Your task to perform on an android device: Open Reddit.com Image 0: 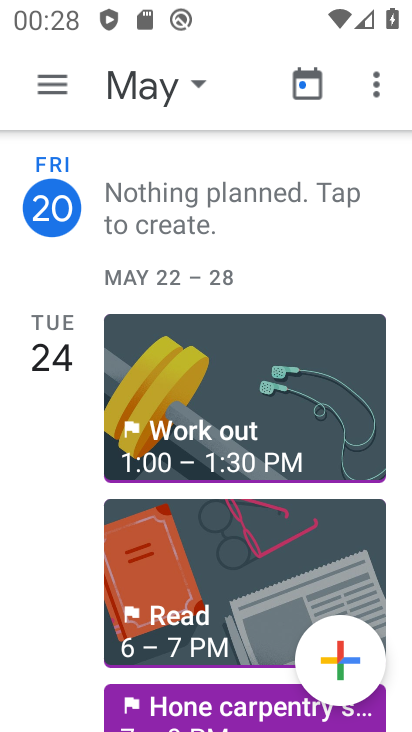
Step 0: press home button
Your task to perform on an android device: Open Reddit.com Image 1: 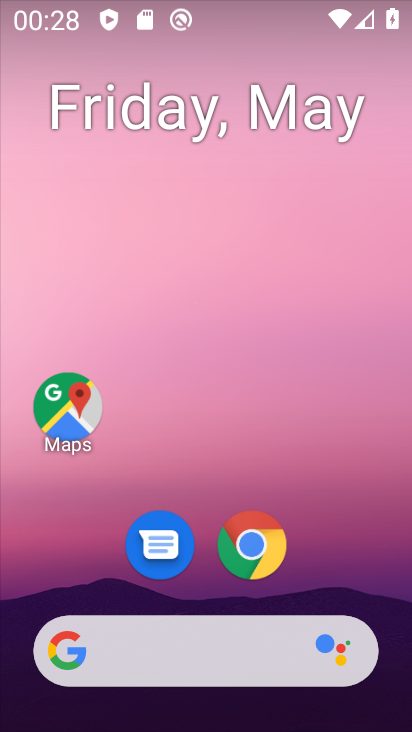
Step 1: click (251, 585)
Your task to perform on an android device: Open Reddit.com Image 2: 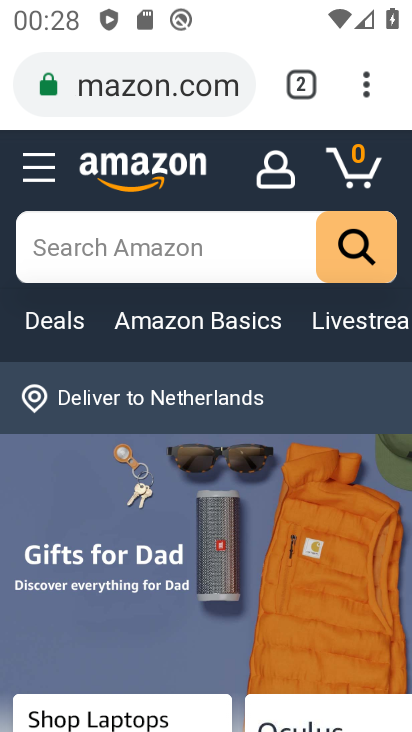
Step 2: click (183, 92)
Your task to perform on an android device: Open Reddit.com Image 3: 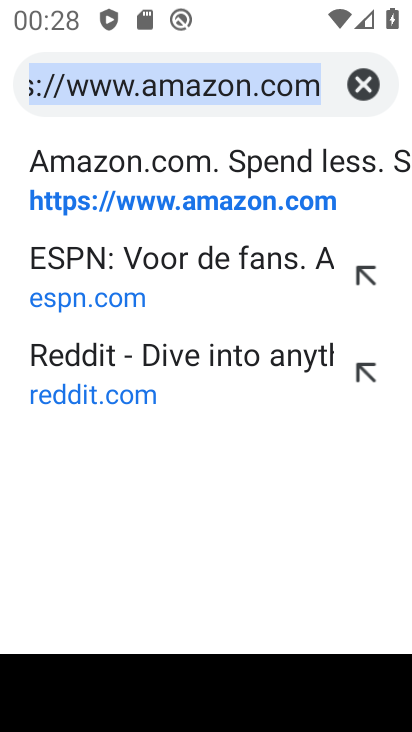
Step 3: type "www.reddit.com"
Your task to perform on an android device: Open Reddit.com Image 4: 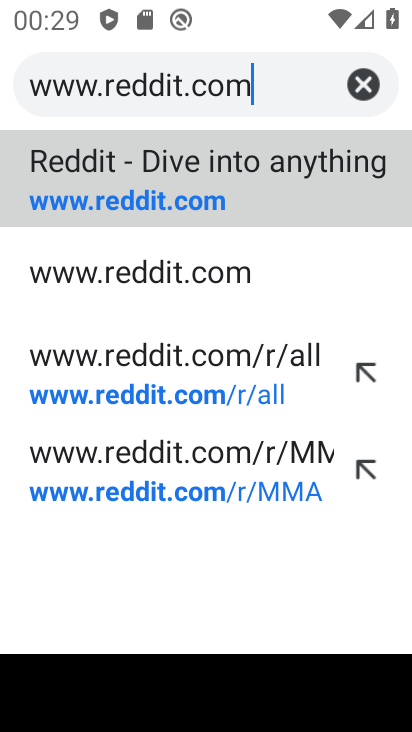
Step 4: click (196, 193)
Your task to perform on an android device: Open Reddit.com Image 5: 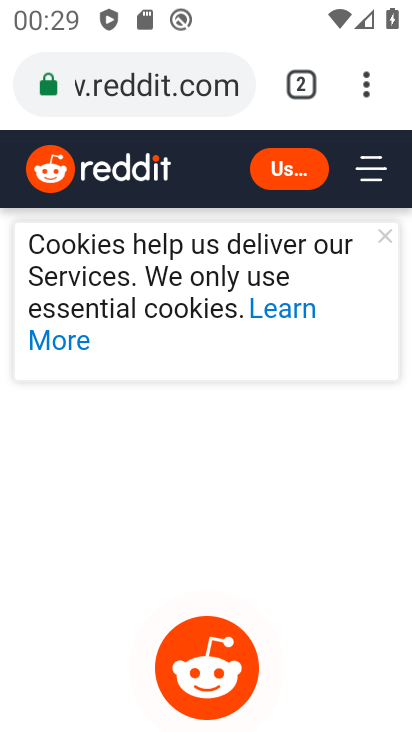
Step 5: task complete